Your task to perform on an android device: Go to Google maps Image 0: 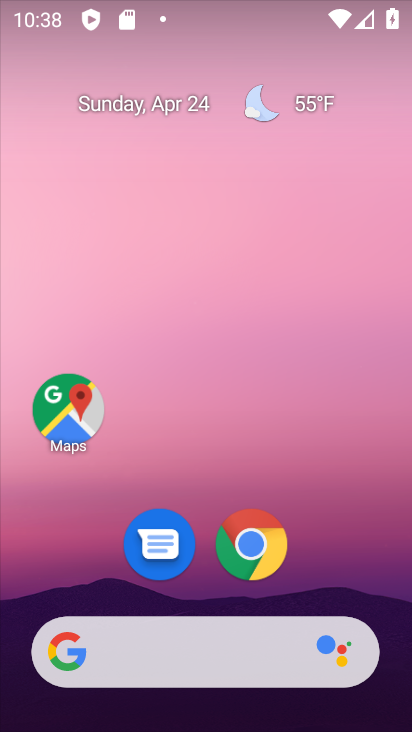
Step 0: click (84, 418)
Your task to perform on an android device: Go to Google maps Image 1: 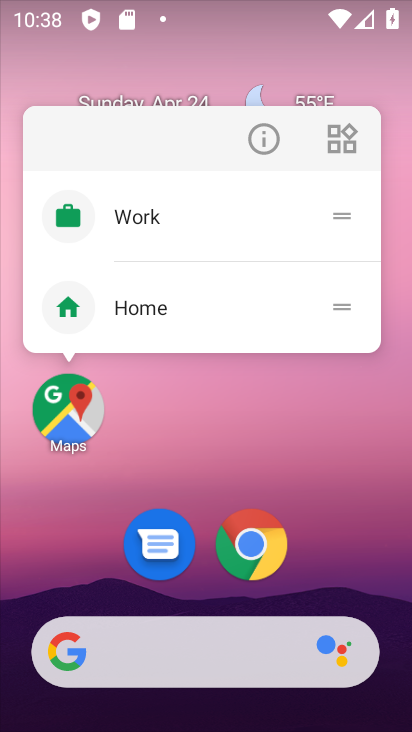
Step 1: click (84, 418)
Your task to perform on an android device: Go to Google maps Image 2: 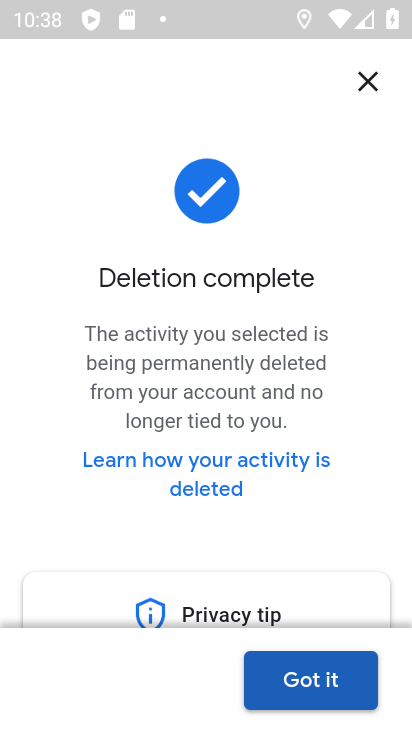
Step 2: task complete